Your task to perform on an android device: set the stopwatch Image 0: 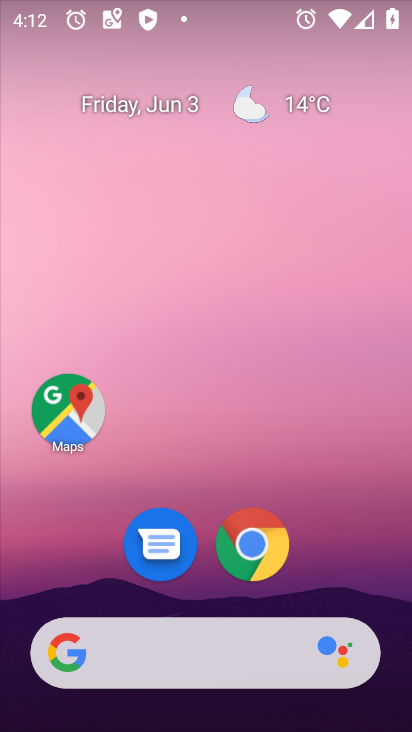
Step 0: drag from (396, 639) to (328, 75)
Your task to perform on an android device: set the stopwatch Image 1: 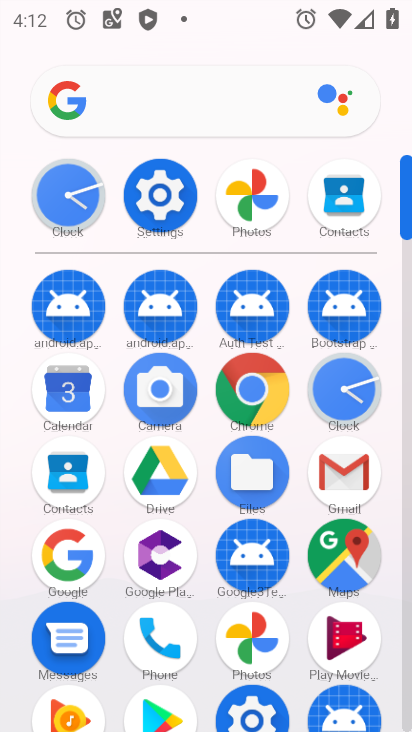
Step 1: click (405, 674)
Your task to perform on an android device: set the stopwatch Image 2: 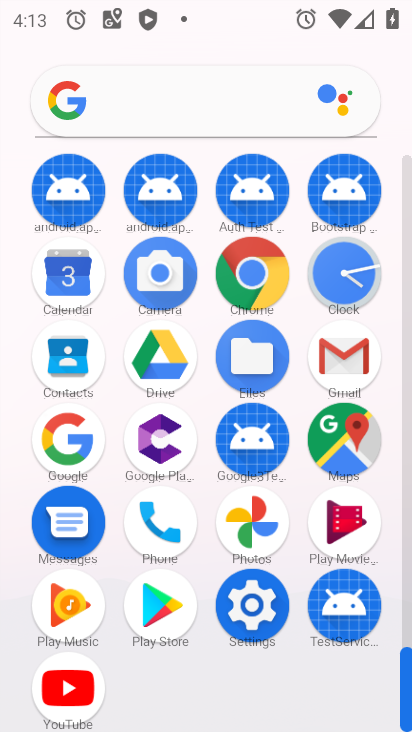
Step 2: click (341, 275)
Your task to perform on an android device: set the stopwatch Image 3: 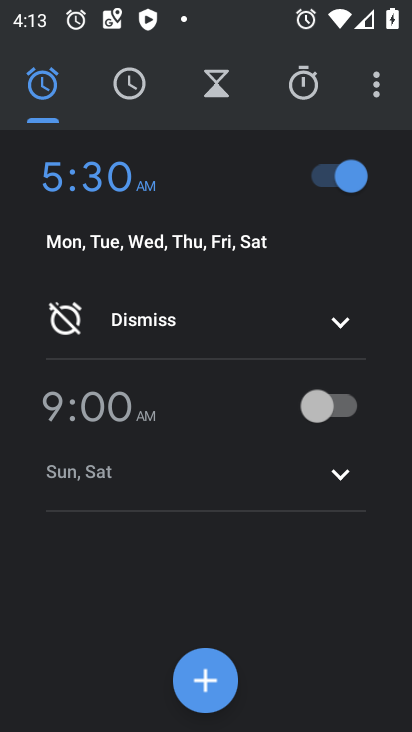
Step 3: click (305, 88)
Your task to perform on an android device: set the stopwatch Image 4: 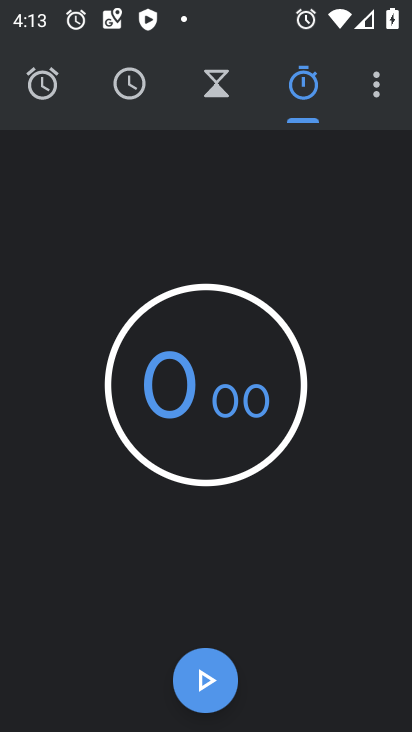
Step 4: task complete